Your task to perform on an android device: toggle airplane mode Image 0: 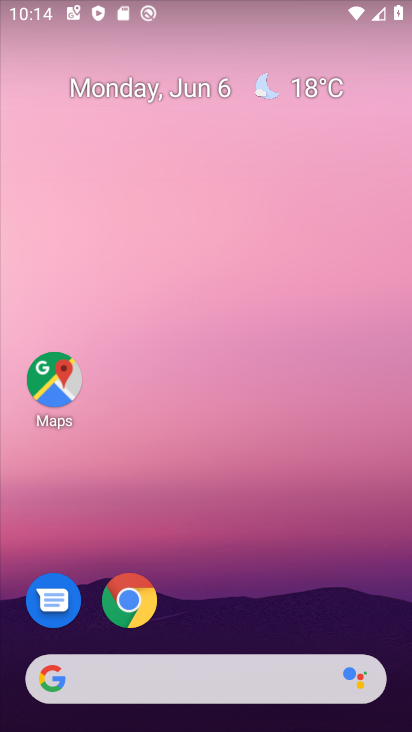
Step 0: drag from (250, 557) to (184, 30)
Your task to perform on an android device: toggle airplane mode Image 1: 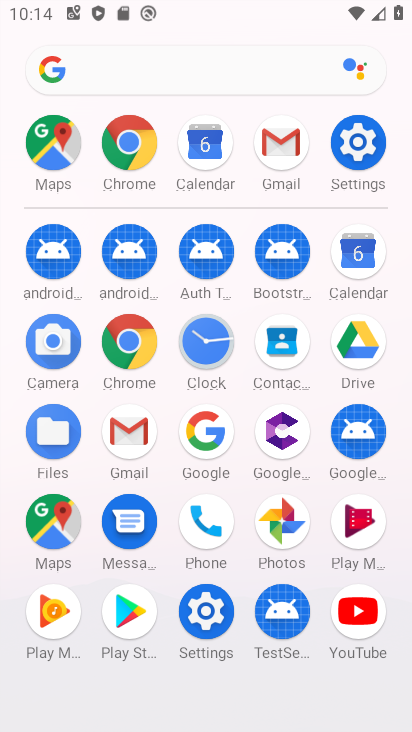
Step 1: click (360, 138)
Your task to perform on an android device: toggle airplane mode Image 2: 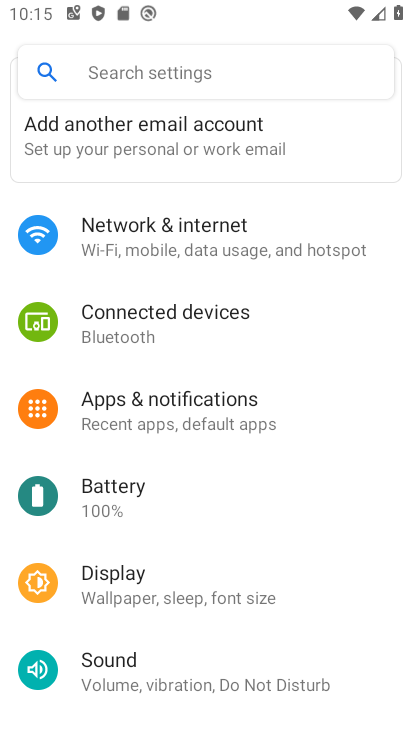
Step 2: click (267, 210)
Your task to perform on an android device: toggle airplane mode Image 3: 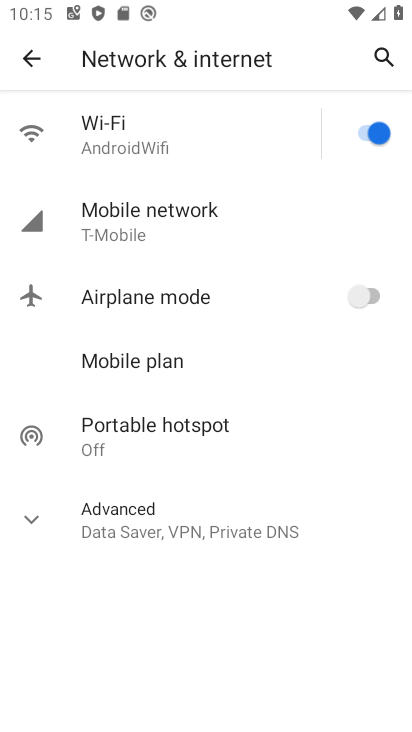
Step 3: click (12, 521)
Your task to perform on an android device: toggle airplane mode Image 4: 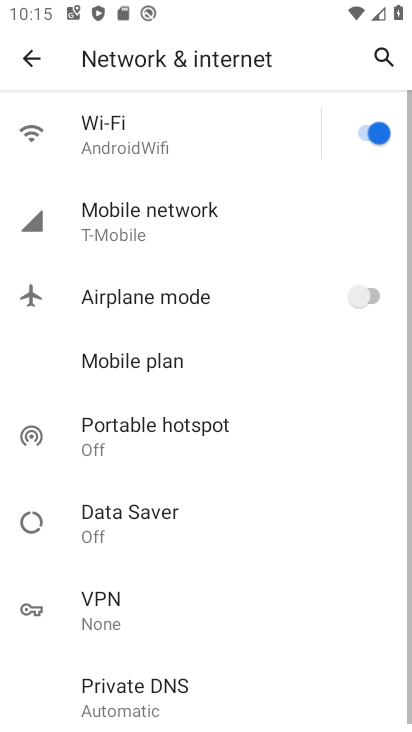
Step 4: click (368, 294)
Your task to perform on an android device: toggle airplane mode Image 5: 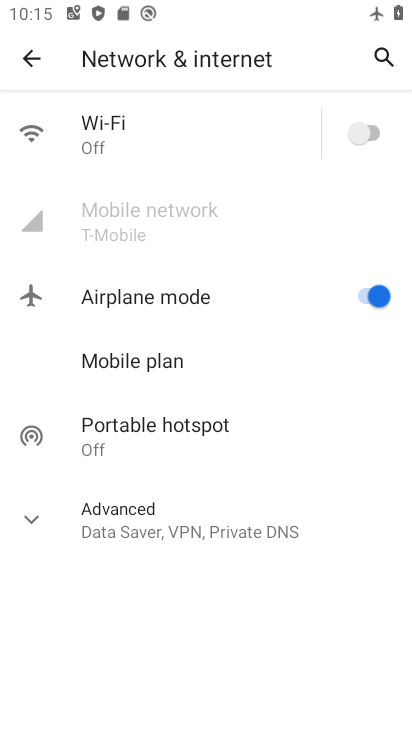
Step 5: click (25, 514)
Your task to perform on an android device: toggle airplane mode Image 6: 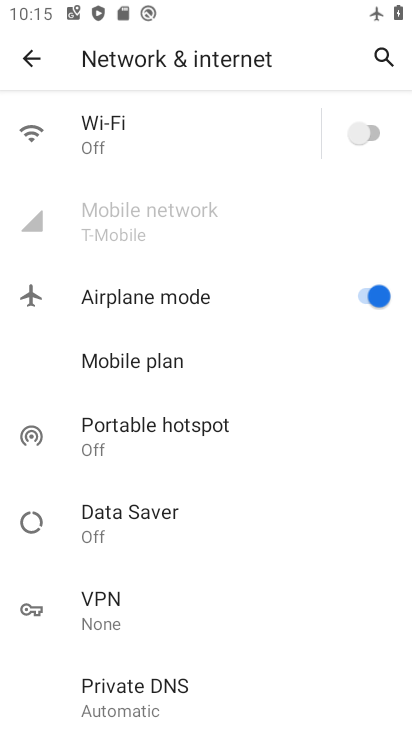
Step 6: drag from (255, 617) to (230, 139)
Your task to perform on an android device: toggle airplane mode Image 7: 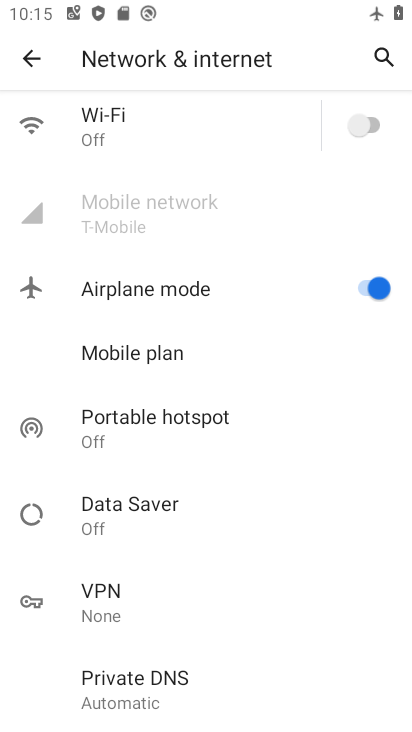
Step 7: click (370, 284)
Your task to perform on an android device: toggle airplane mode Image 8: 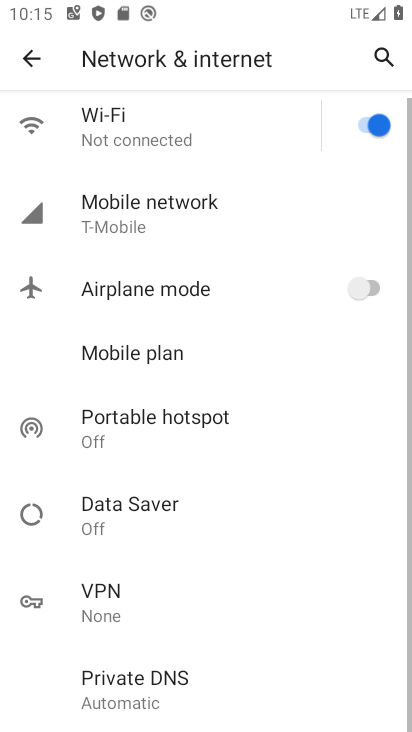
Step 8: task complete